Your task to perform on an android device: Open Google Chrome and click the shortcut for Amazon.com Image 0: 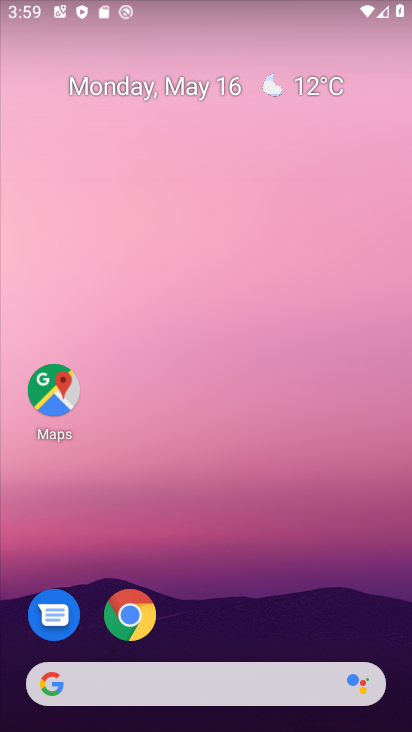
Step 0: click (130, 616)
Your task to perform on an android device: Open Google Chrome and click the shortcut for Amazon.com Image 1: 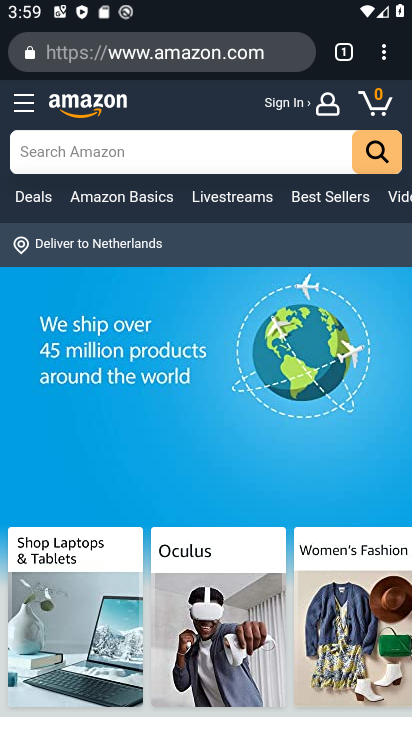
Step 1: click (385, 59)
Your task to perform on an android device: Open Google Chrome and click the shortcut for Amazon.com Image 2: 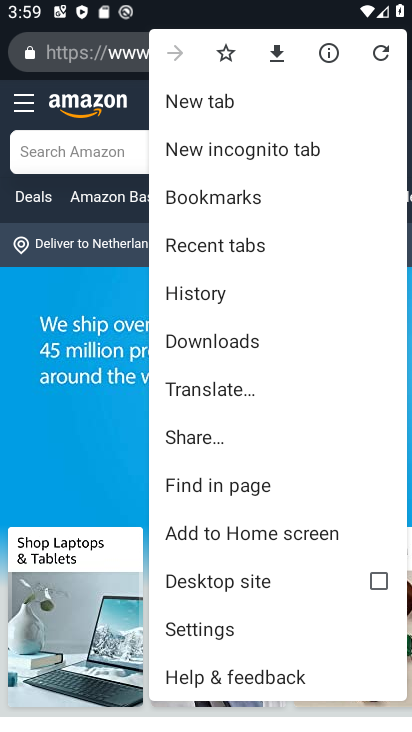
Step 2: click (207, 100)
Your task to perform on an android device: Open Google Chrome and click the shortcut for Amazon.com Image 3: 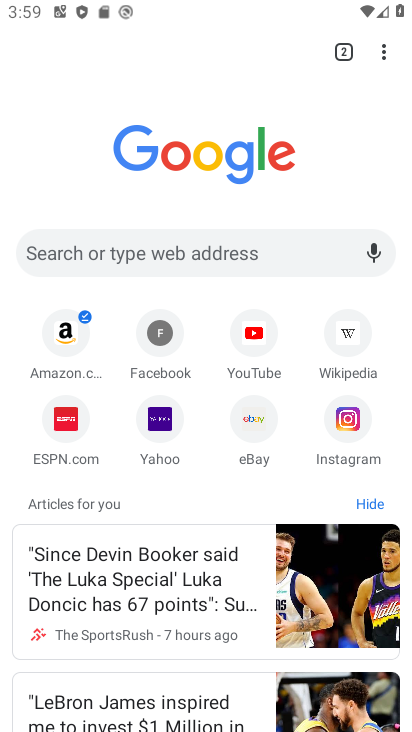
Step 3: click (66, 327)
Your task to perform on an android device: Open Google Chrome and click the shortcut for Amazon.com Image 4: 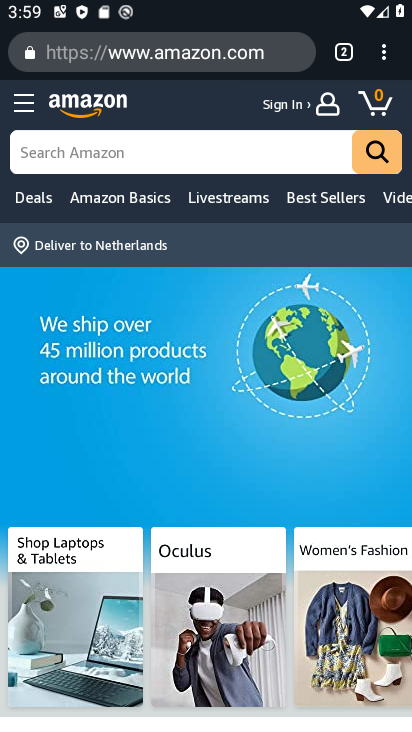
Step 4: task complete